Your task to perform on an android device: Open location settings Image 0: 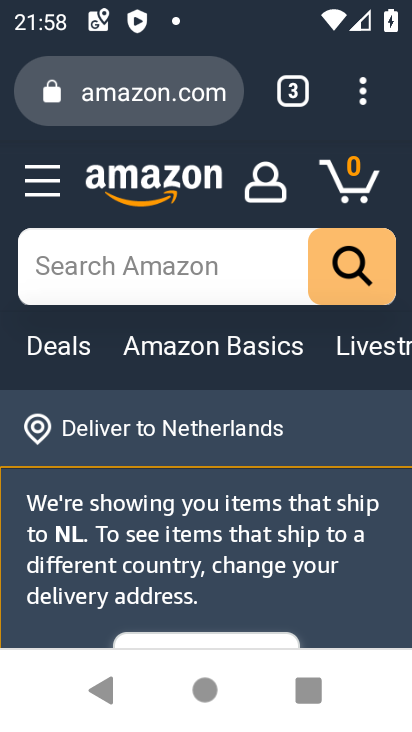
Step 0: press home button
Your task to perform on an android device: Open location settings Image 1: 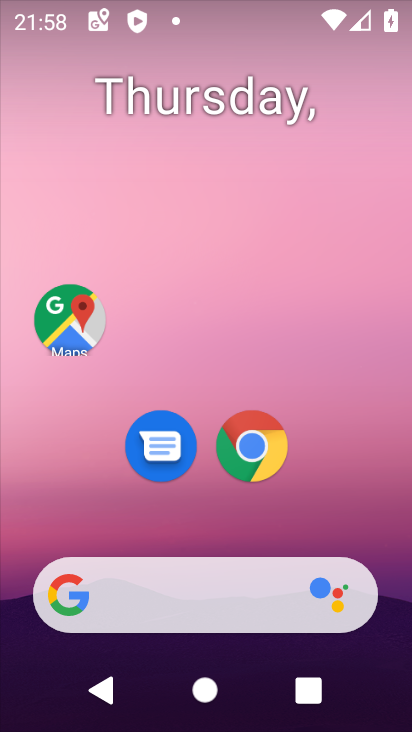
Step 1: drag from (359, 518) to (338, 5)
Your task to perform on an android device: Open location settings Image 2: 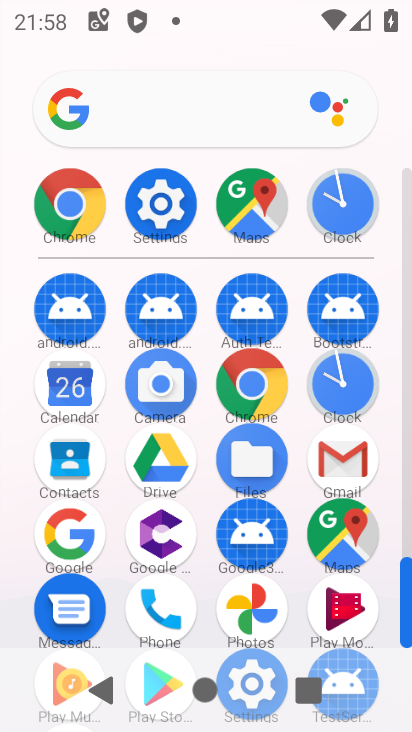
Step 2: click (139, 226)
Your task to perform on an android device: Open location settings Image 3: 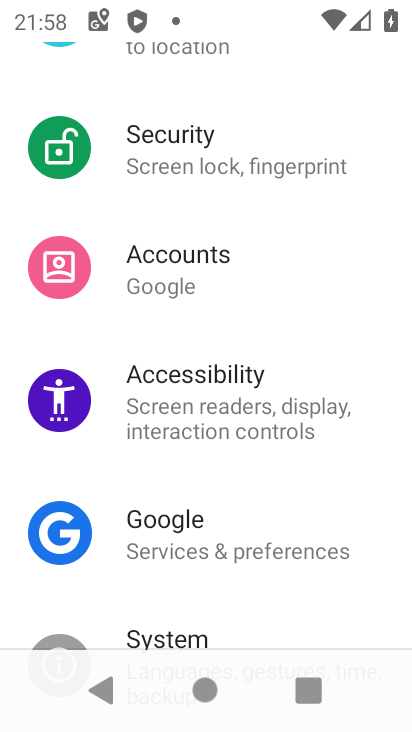
Step 3: drag from (141, 228) to (160, 729)
Your task to perform on an android device: Open location settings Image 4: 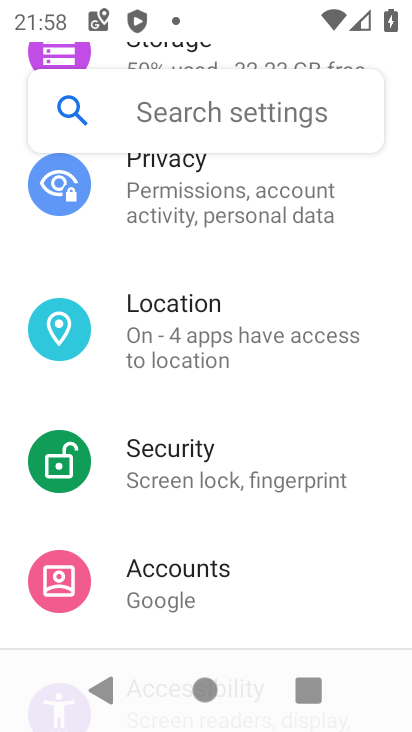
Step 4: click (156, 359)
Your task to perform on an android device: Open location settings Image 5: 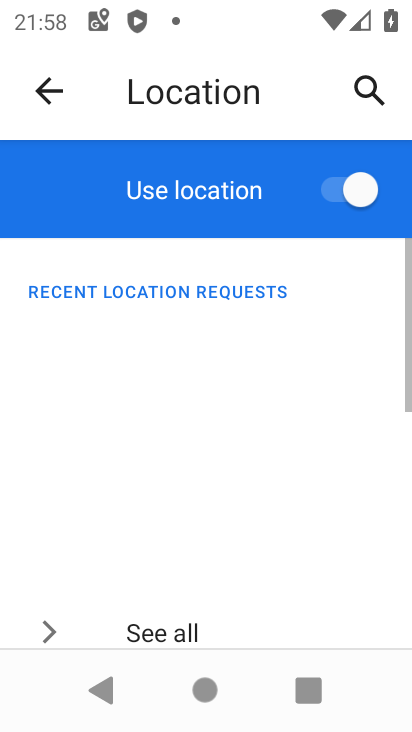
Step 5: task complete